Your task to perform on an android device: refresh tabs in the chrome app Image 0: 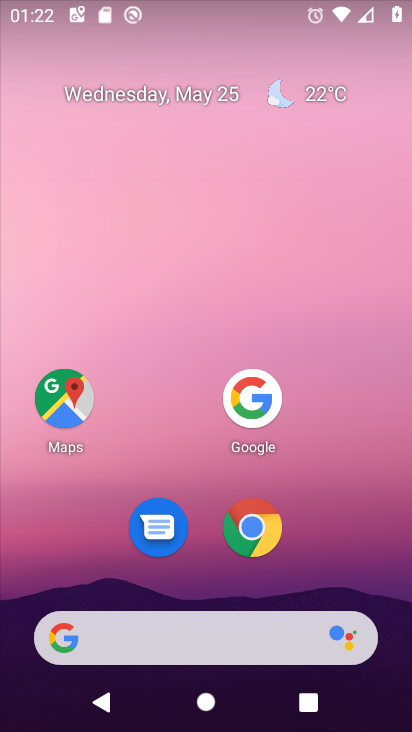
Step 0: press home button
Your task to perform on an android device: refresh tabs in the chrome app Image 1: 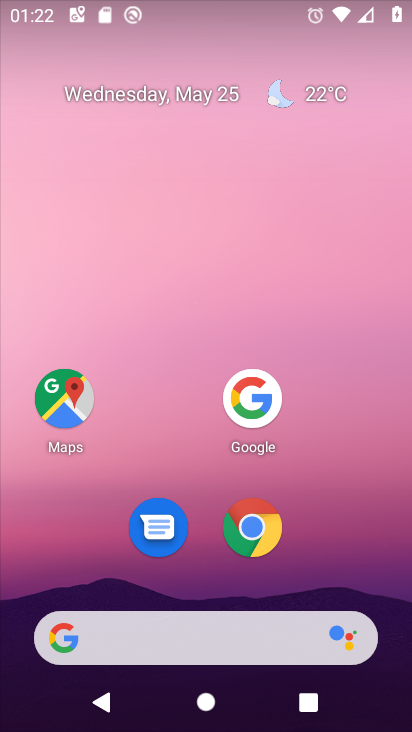
Step 1: click (256, 540)
Your task to perform on an android device: refresh tabs in the chrome app Image 2: 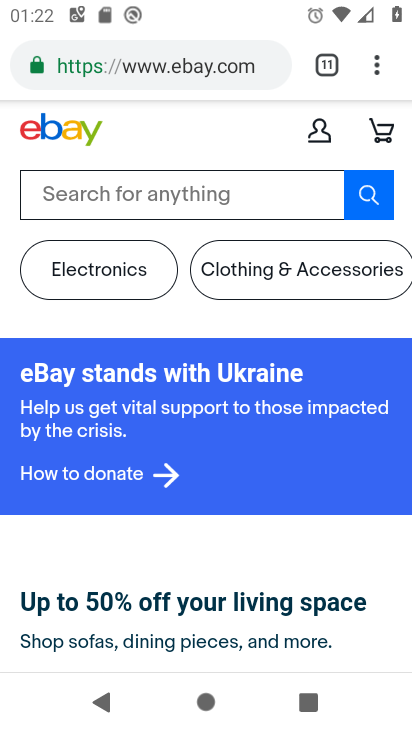
Step 2: click (374, 83)
Your task to perform on an android device: refresh tabs in the chrome app Image 3: 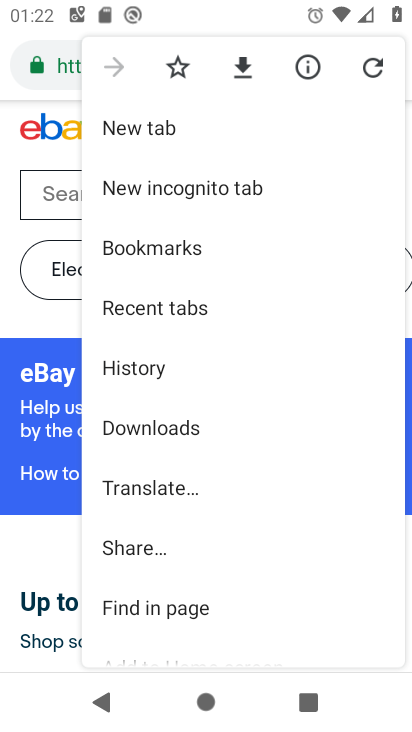
Step 3: click (369, 76)
Your task to perform on an android device: refresh tabs in the chrome app Image 4: 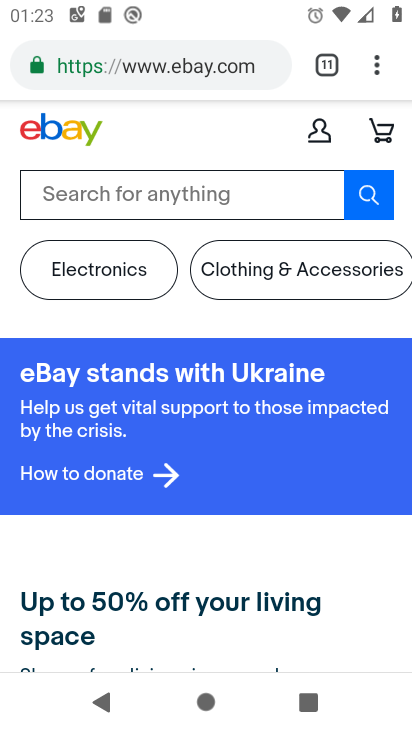
Step 4: task complete